Your task to perform on an android device: see tabs open on other devices in the chrome app Image 0: 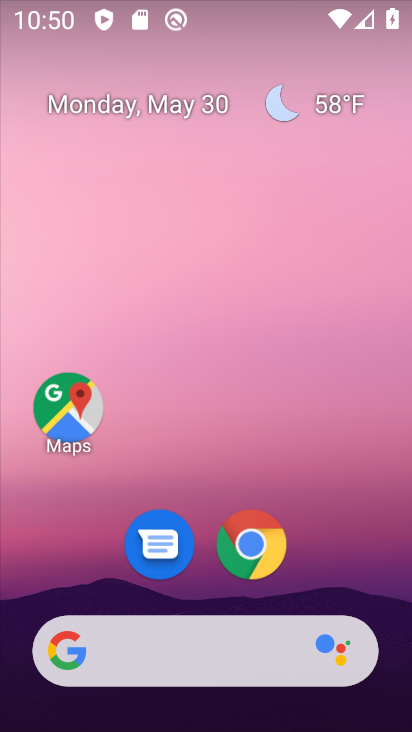
Step 0: click (261, 544)
Your task to perform on an android device: see tabs open on other devices in the chrome app Image 1: 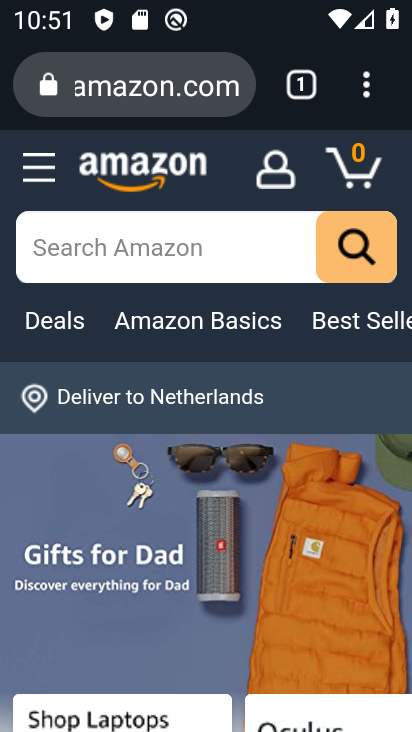
Step 1: click (358, 91)
Your task to perform on an android device: see tabs open on other devices in the chrome app Image 2: 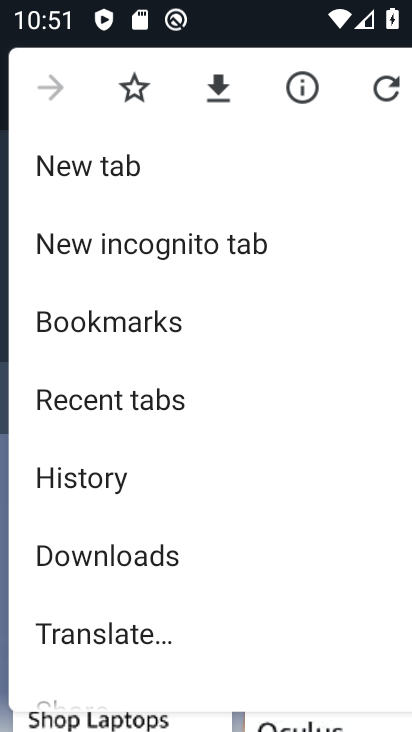
Step 2: click (213, 389)
Your task to perform on an android device: see tabs open on other devices in the chrome app Image 3: 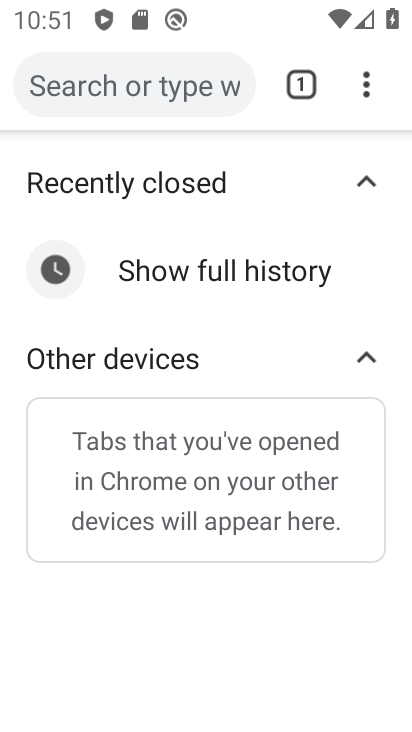
Step 3: task complete